Your task to perform on an android device: toggle javascript in the chrome app Image 0: 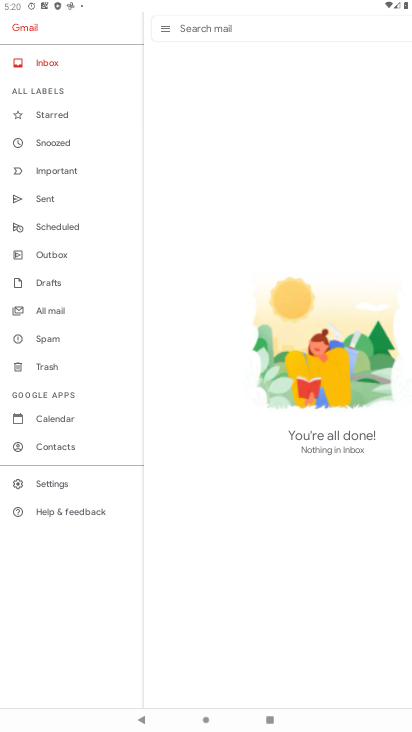
Step 0: press home button
Your task to perform on an android device: toggle javascript in the chrome app Image 1: 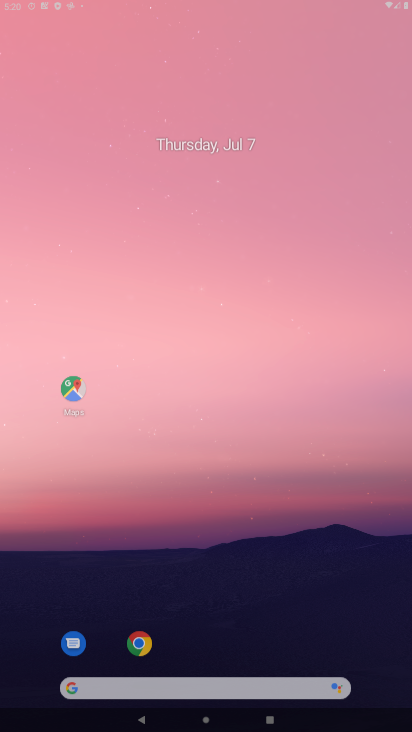
Step 1: drag from (361, 716) to (166, 40)
Your task to perform on an android device: toggle javascript in the chrome app Image 2: 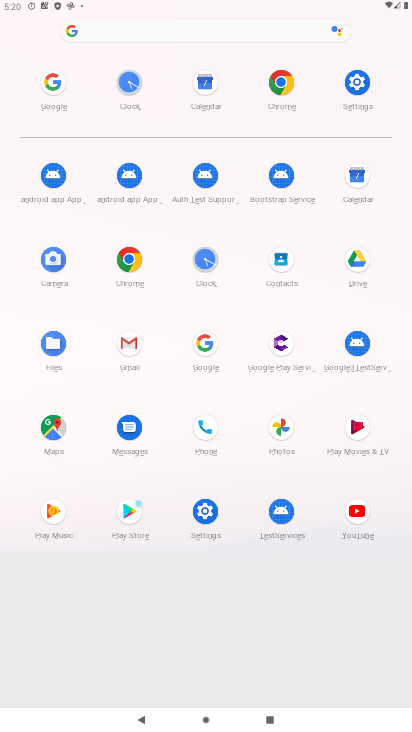
Step 2: click (280, 94)
Your task to perform on an android device: toggle javascript in the chrome app Image 3: 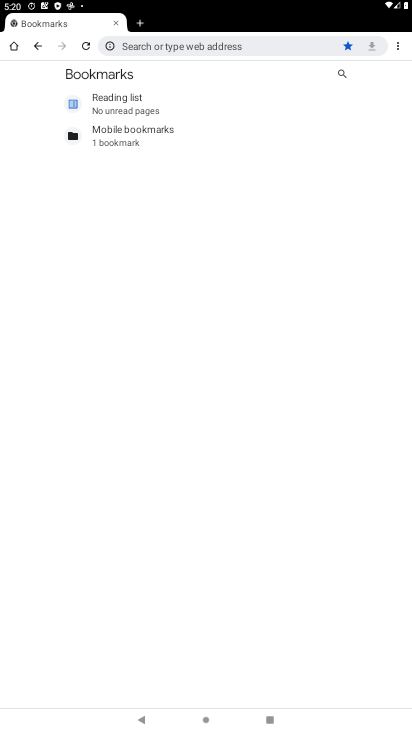
Step 3: click (396, 44)
Your task to perform on an android device: toggle javascript in the chrome app Image 4: 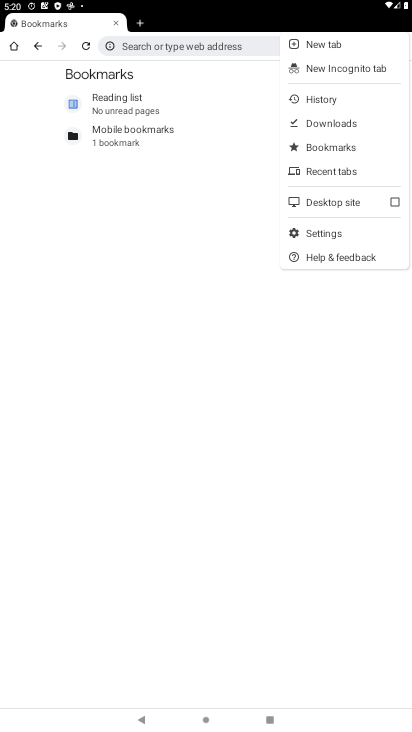
Step 4: click (333, 232)
Your task to perform on an android device: toggle javascript in the chrome app Image 5: 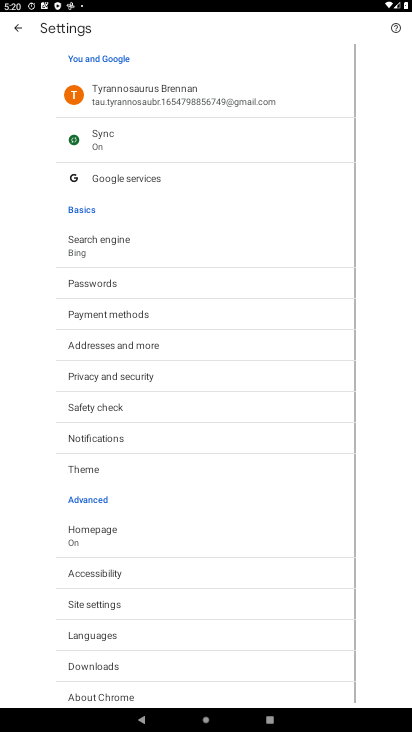
Step 5: click (97, 608)
Your task to perform on an android device: toggle javascript in the chrome app Image 6: 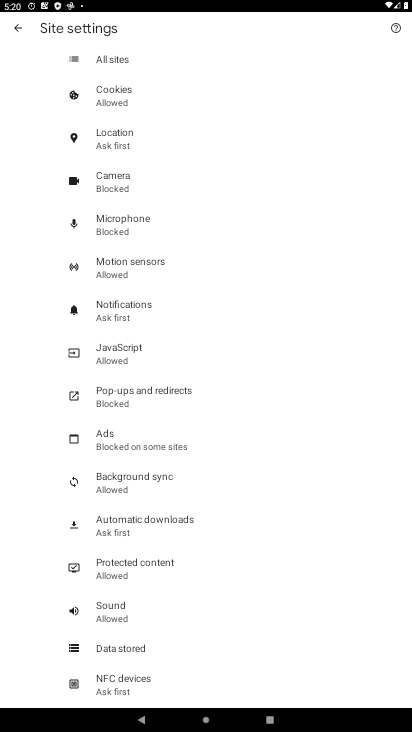
Step 6: click (126, 353)
Your task to perform on an android device: toggle javascript in the chrome app Image 7: 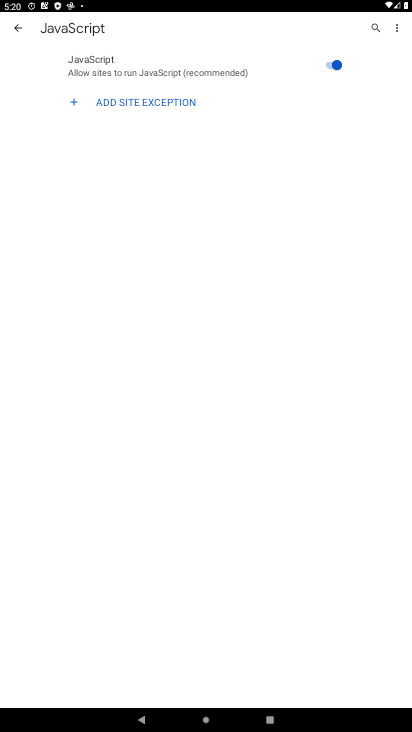
Step 7: task complete